Your task to perform on an android device: turn pop-ups on in chrome Image 0: 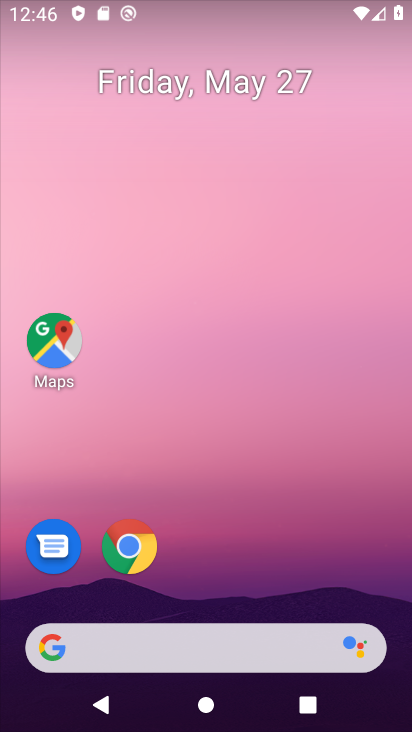
Step 0: drag from (240, 615) to (308, 161)
Your task to perform on an android device: turn pop-ups on in chrome Image 1: 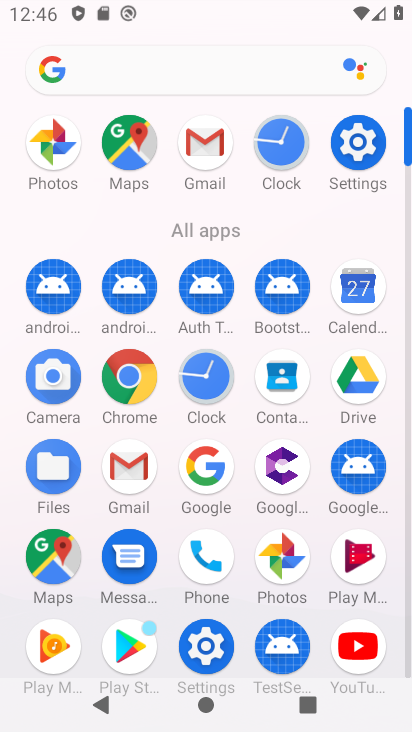
Step 1: click (128, 377)
Your task to perform on an android device: turn pop-ups on in chrome Image 2: 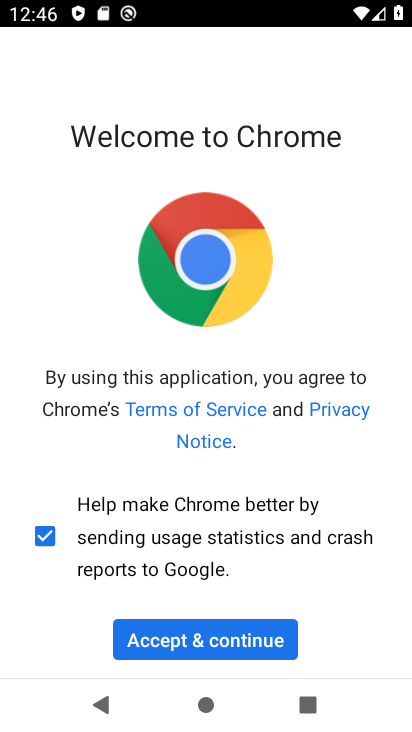
Step 2: click (180, 641)
Your task to perform on an android device: turn pop-ups on in chrome Image 3: 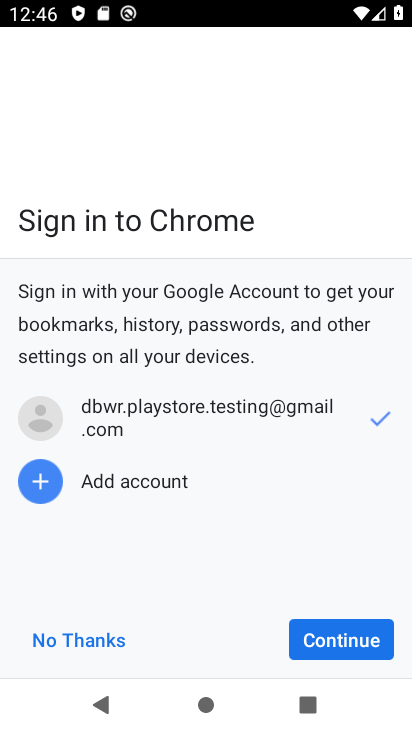
Step 3: click (387, 631)
Your task to perform on an android device: turn pop-ups on in chrome Image 4: 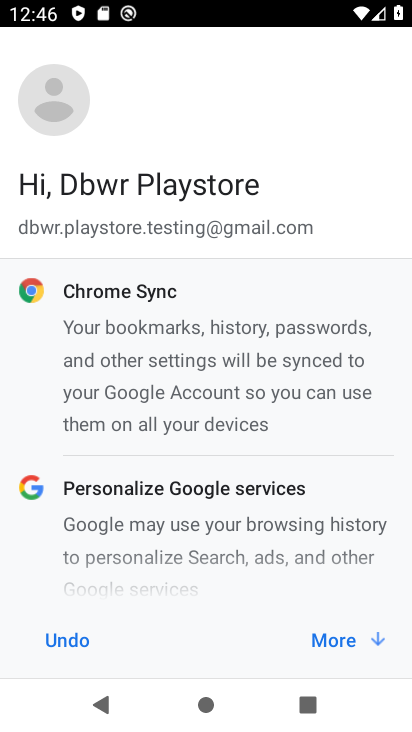
Step 4: click (359, 653)
Your task to perform on an android device: turn pop-ups on in chrome Image 5: 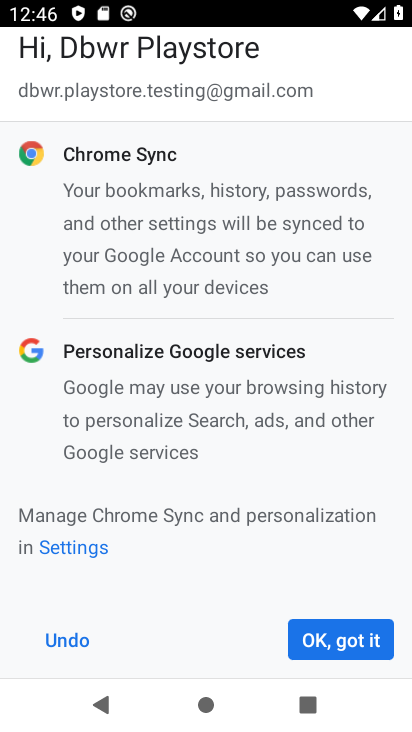
Step 5: click (363, 649)
Your task to perform on an android device: turn pop-ups on in chrome Image 6: 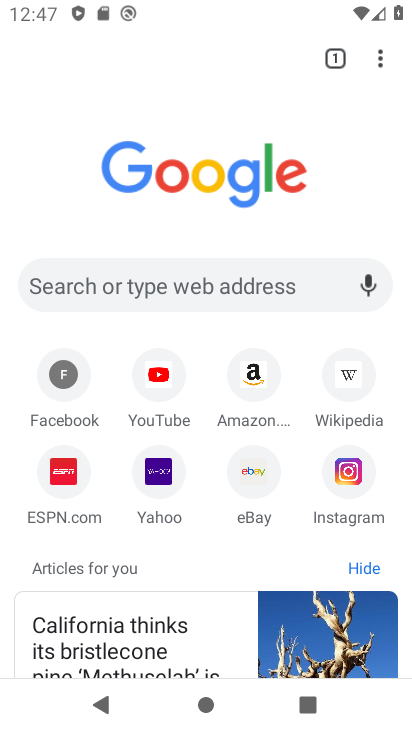
Step 6: click (382, 66)
Your task to perform on an android device: turn pop-ups on in chrome Image 7: 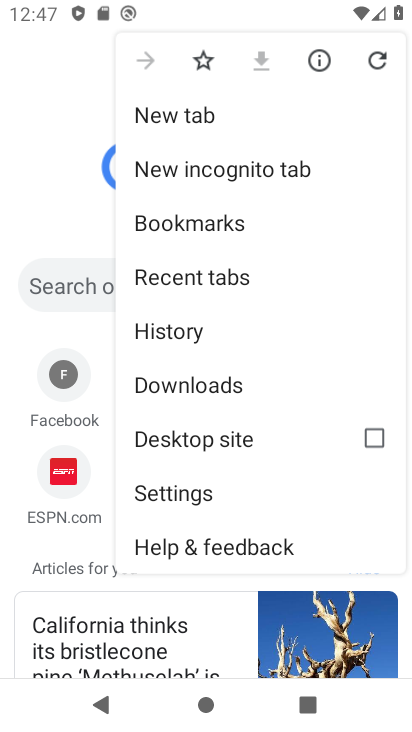
Step 7: click (169, 487)
Your task to perform on an android device: turn pop-ups on in chrome Image 8: 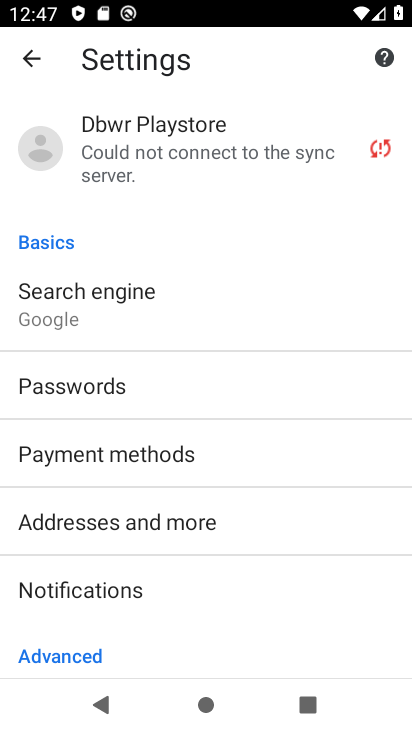
Step 8: drag from (165, 586) to (250, 240)
Your task to perform on an android device: turn pop-ups on in chrome Image 9: 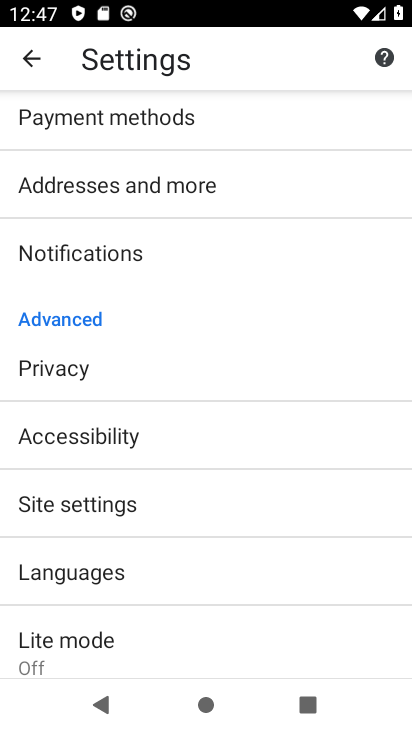
Step 9: click (122, 503)
Your task to perform on an android device: turn pop-ups on in chrome Image 10: 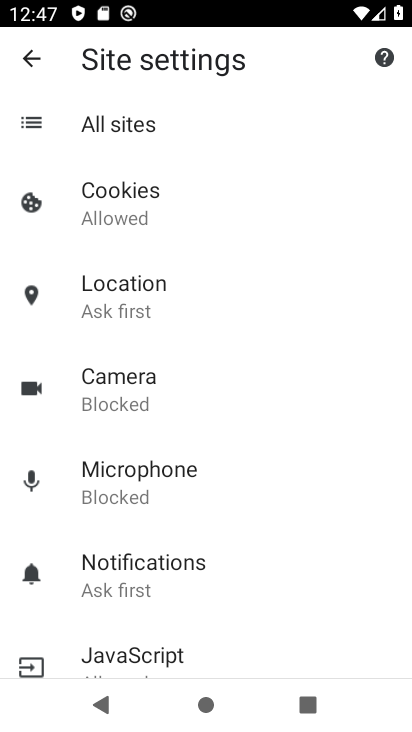
Step 10: drag from (160, 597) to (235, 402)
Your task to perform on an android device: turn pop-ups on in chrome Image 11: 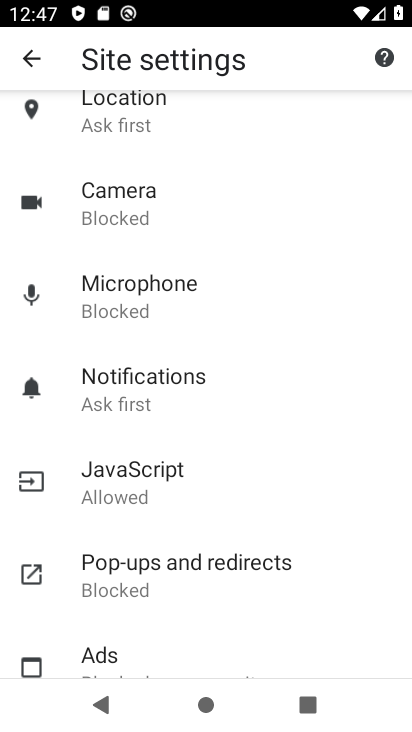
Step 11: click (145, 579)
Your task to perform on an android device: turn pop-ups on in chrome Image 12: 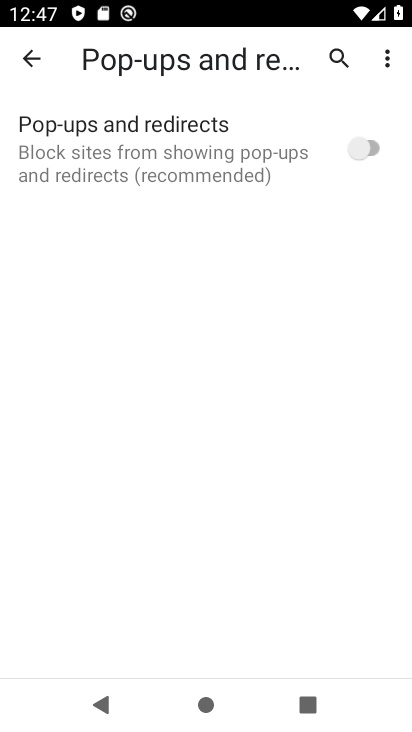
Step 12: click (369, 142)
Your task to perform on an android device: turn pop-ups on in chrome Image 13: 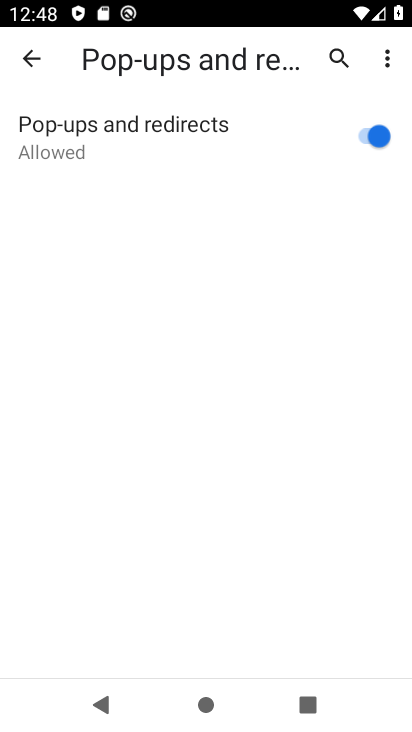
Step 13: task complete